Your task to perform on an android device: manage bookmarks in the chrome app Image 0: 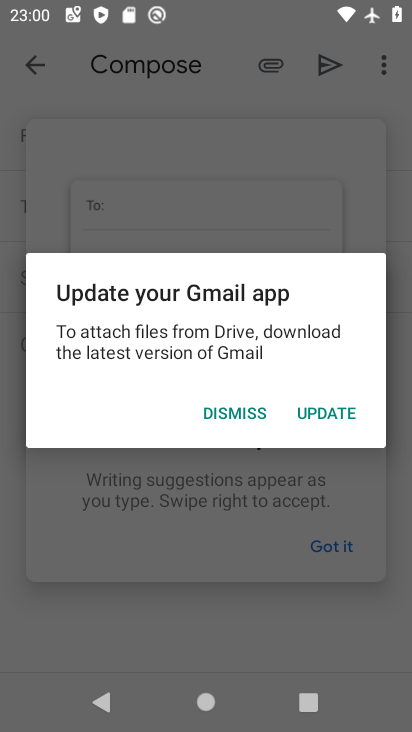
Step 0: press home button
Your task to perform on an android device: manage bookmarks in the chrome app Image 1: 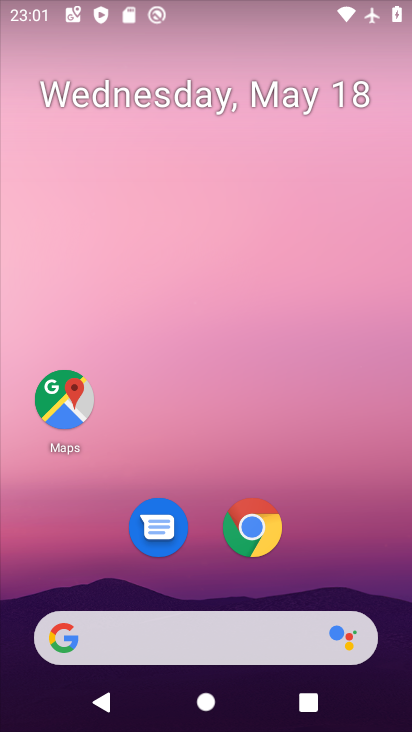
Step 1: click (278, 532)
Your task to perform on an android device: manage bookmarks in the chrome app Image 2: 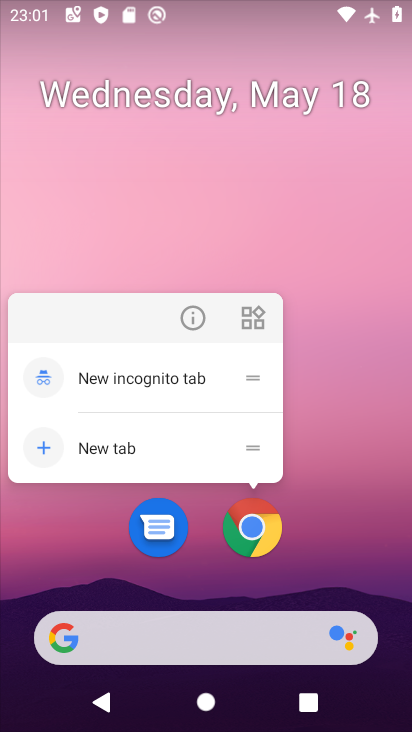
Step 2: click (244, 540)
Your task to perform on an android device: manage bookmarks in the chrome app Image 3: 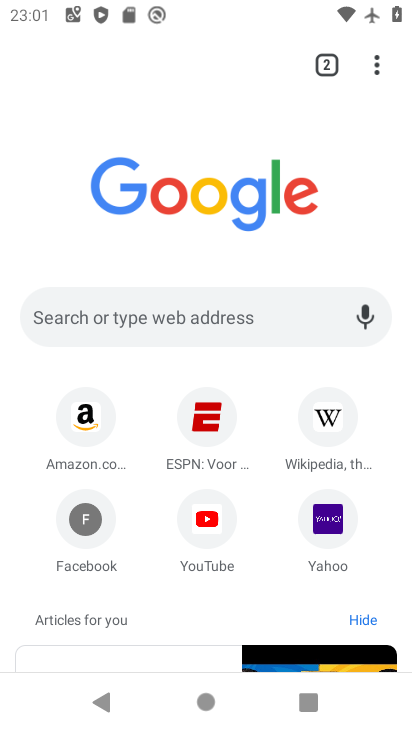
Step 3: click (376, 68)
Your task to perform on an android device: manage bookmarks in the chrome app Image 4: 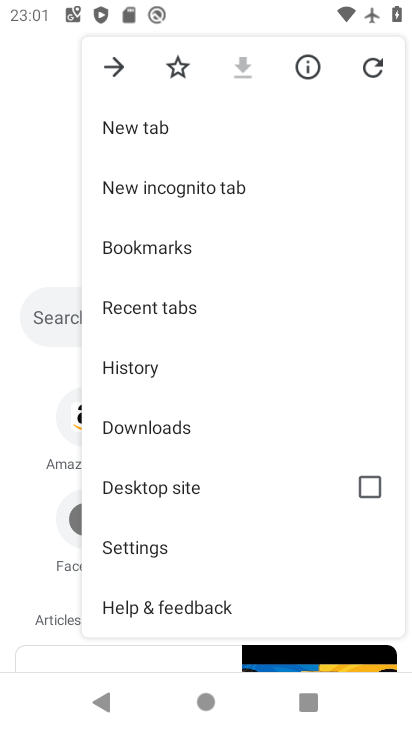
Step 4: click (231, 241)
Your task to perform on an android device: manage bookmarks in the chrome app Image 5: 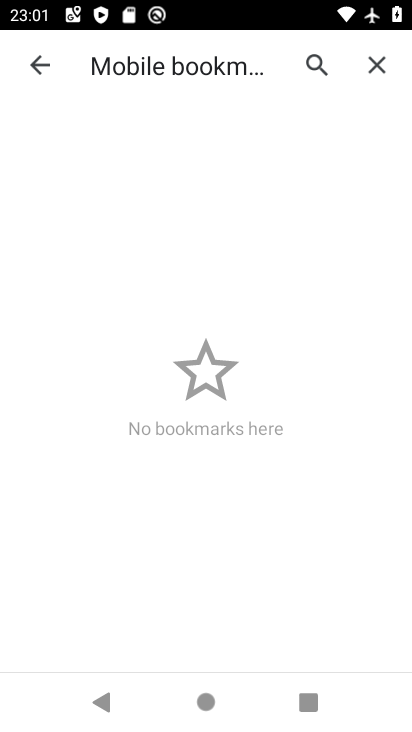
Step 5: task complete